Your task to perform on an android device: Open the stopwatch Image 0: 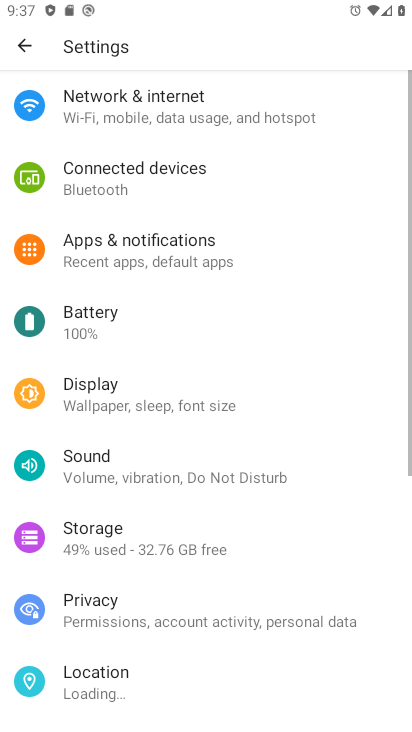
Step 0: press home button
Your task to perform on an android device: Open the stopwatch Image 1: 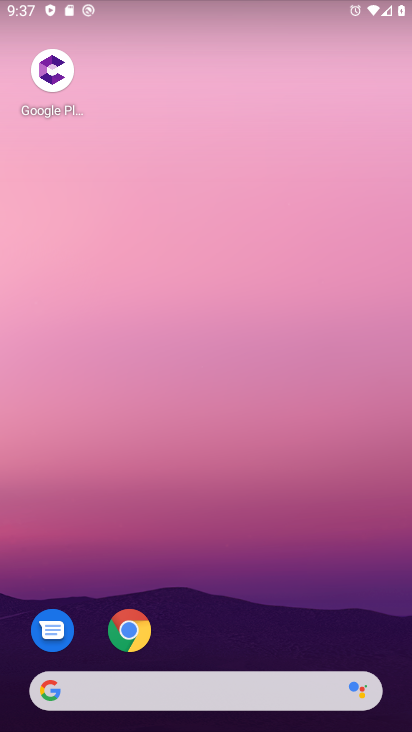
Step 1: drag from (301, 603) to (279, 132)
Your task to perform on an android device: Open the stopwatch Image 2: 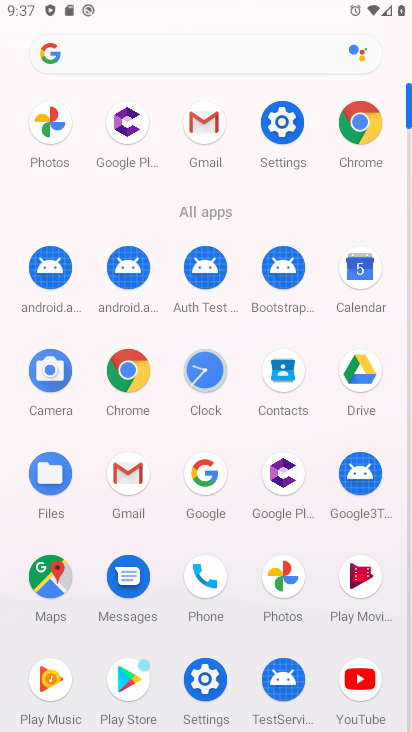
Step 2: click (205, 377)
Your task to perform on an android device: Open the stopwatch Image 3: 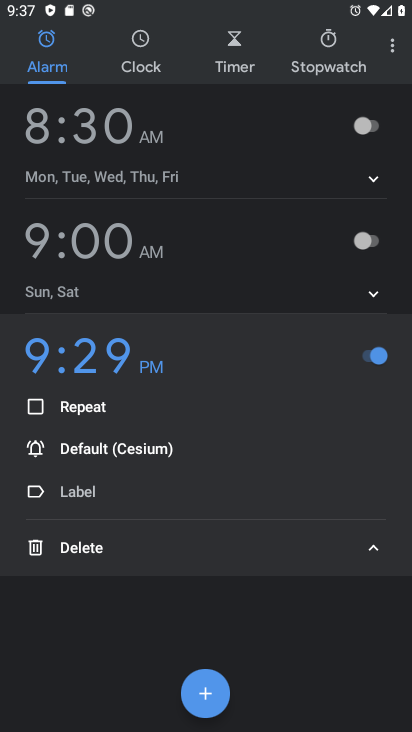
Step 3: click (315, 76)
Your task to perform on an android device: Open the stopwatch Image 4: 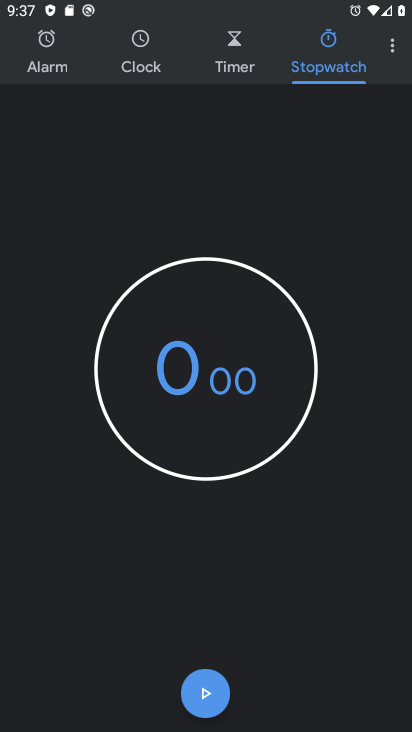
Step 4: task complete